Your task to perform on an android device: show emergency info Image 0: 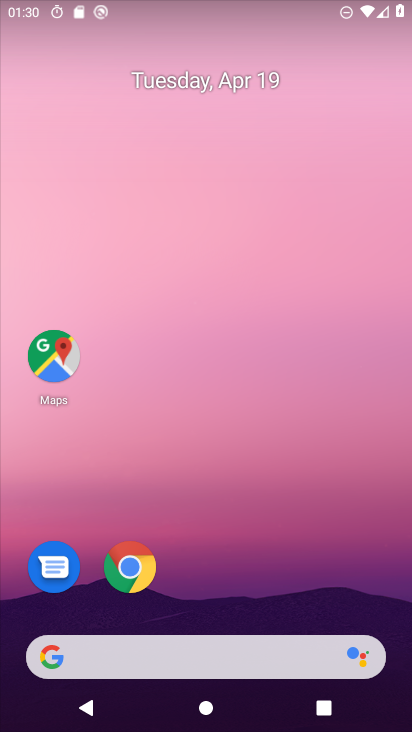
Step 0: drag from (249, 524) to (204, 197)
Your task to perform on an android device: show emergency info Image 1: 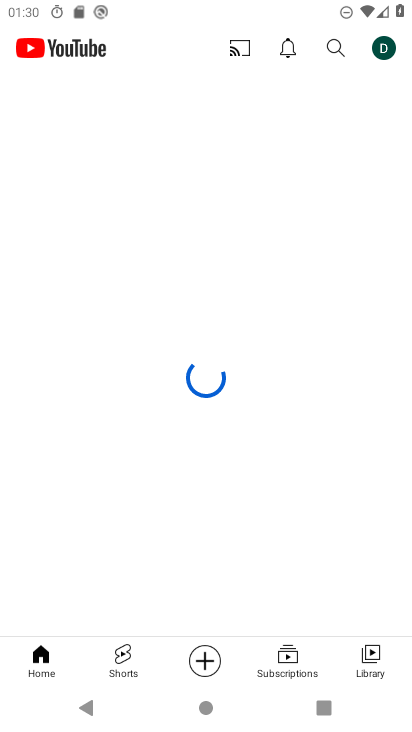
Step 1: press home button
Your task to perform on an android device: show emergency info Image 2: 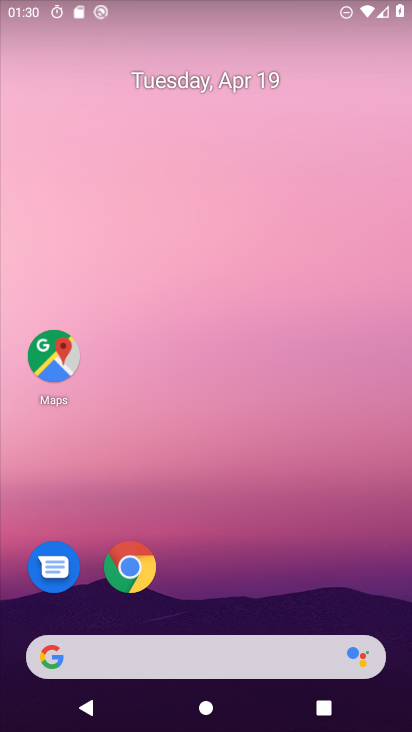
Step 2: drag from (268, 531) to (295, 114)
Your task to perform on an android device: show emergency info Image 3: 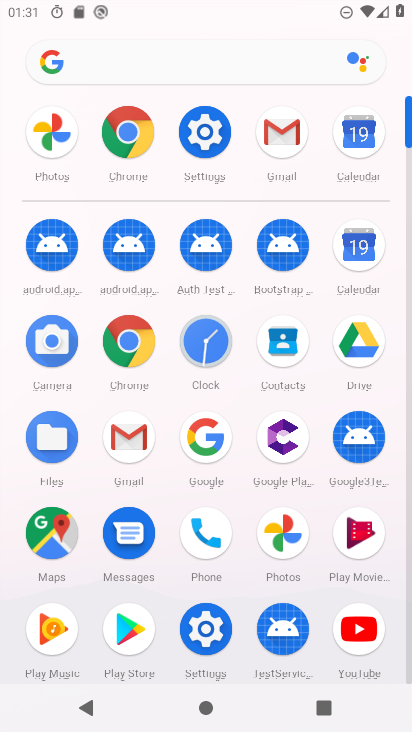
Step 3: click (196, 638)
Your task to perform on an android device: show emergency info Image 4: 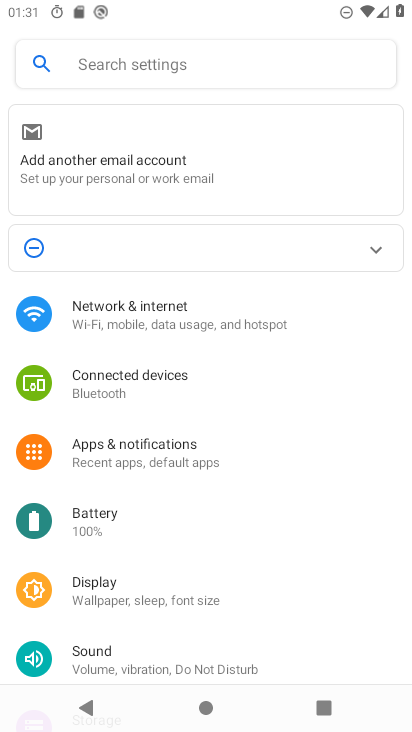
Step 4: drag from (203, 621) to (305, 0)
Your task to perform on an android device: show emergency info Image 5: 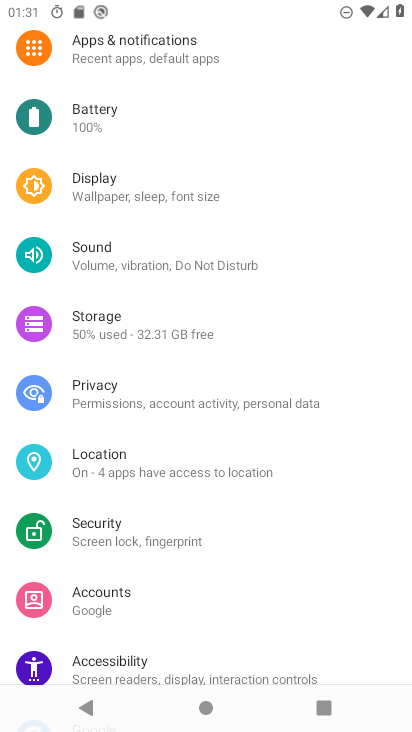
Step 5: drag from (198, 667) to (221, 38)
Your task to perform on an android device: show emergency info Image 6: 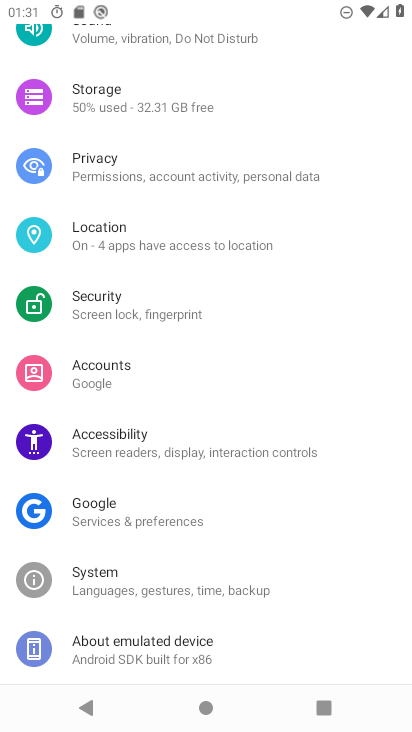
Step 6: click (166, 664)
Your task to perform on an android device: show emergency info Image 7: 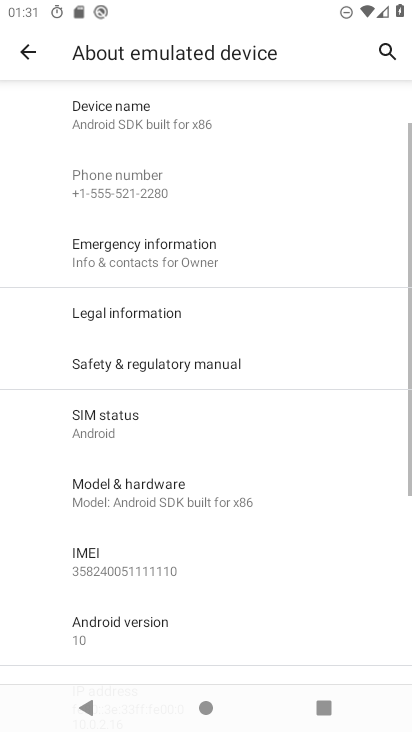
Step 7: click (170, 243)
Your task to perform on an android device: show emergency info Image 8: 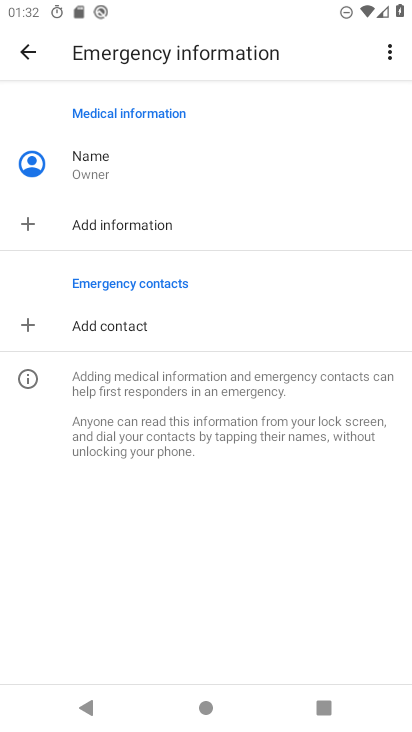
Step 8: task complete